Your task to perform on an android device: add a contact in the contacts app Image 0: 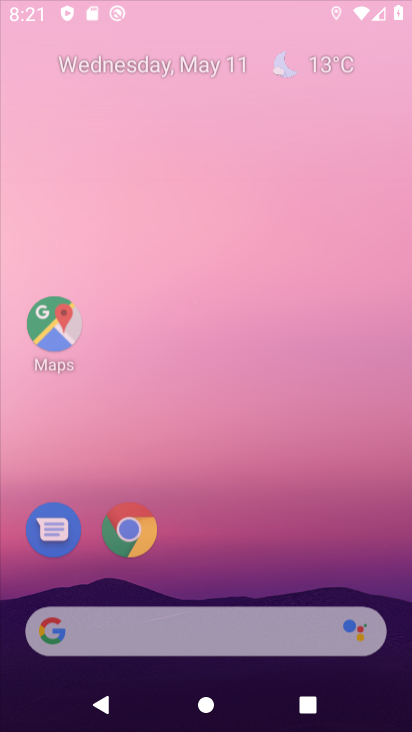
Step 0: click (365, 30)
Your task to perform on an android device: add a contact in the contacts app Image 1: 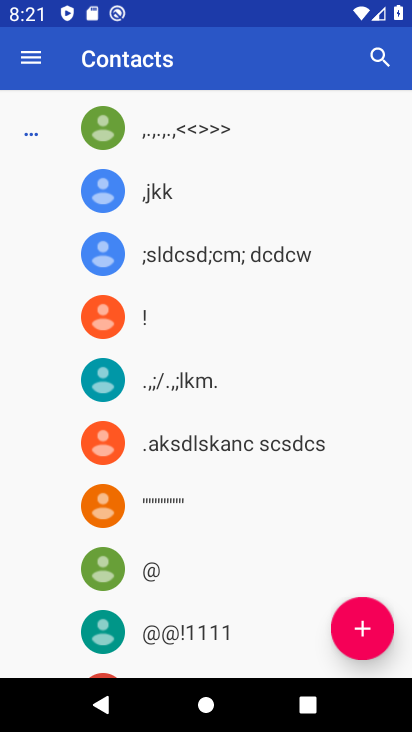
Step 1: press back button
Your task to perform on an android device: add a contact in the contacts app Image 2: 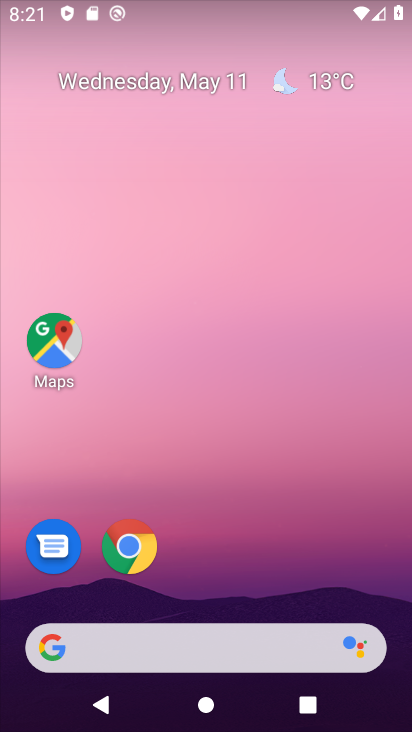
Step 2: drag from (271, 528) to (308, 15)
Your task to perform on an android device: add a contact in the contacts app Image 3: 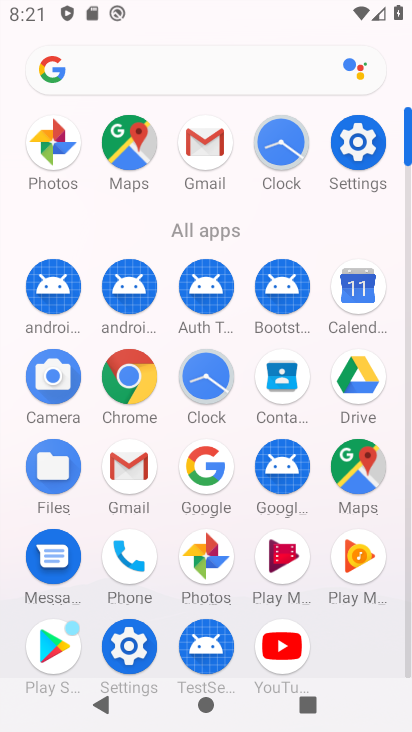
Step 3: click (279, 381)
Your task to perform on an android device: add a contact in the contacts app Image 4: 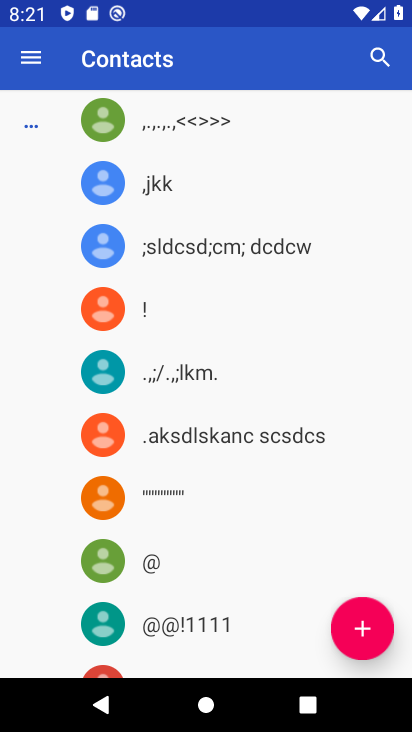
Step 4: click (341, 623)
Your task to perform on an android device: add a contact in the contacts app Image 5: 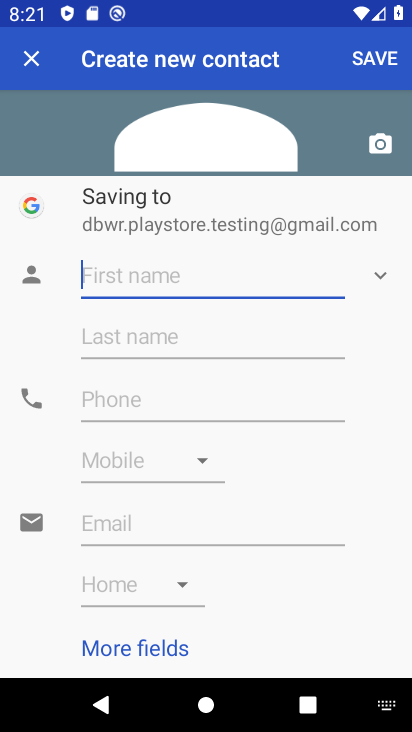
Step 5: click (131, 277)
Your task to perform on an android device: add a contact in the contacts app Image 6: 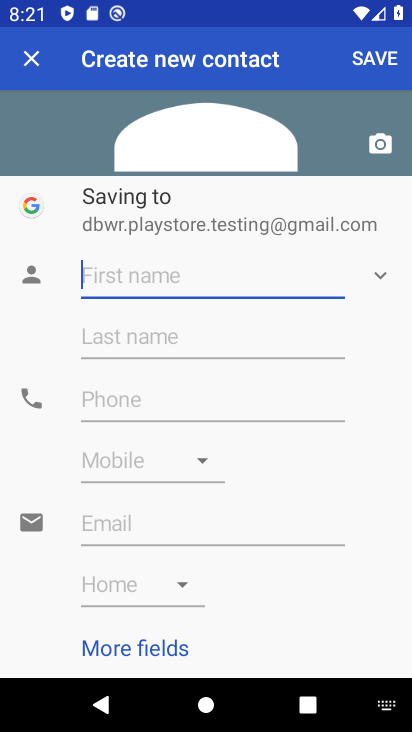
Step 6: type "gfgf"
Your task to perform on an android device: add a contact in the contacts app Image 7: 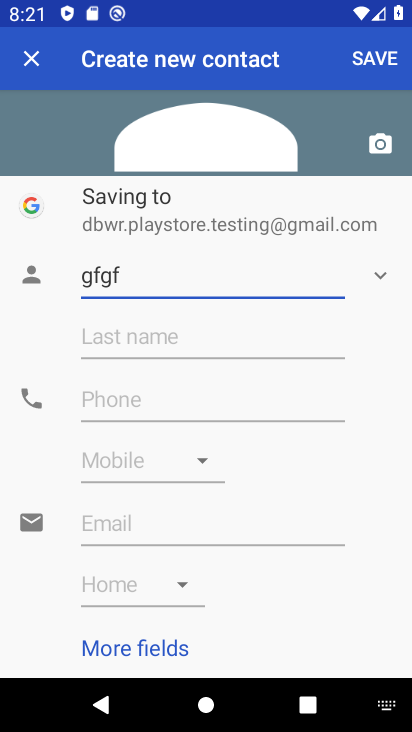
Step 7: click (88, 388)
Your task to perform on an android device: add a contact in the contacts app Image 8: 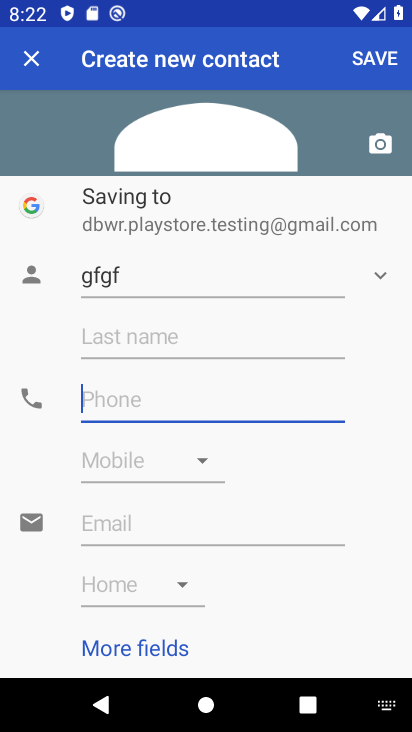
Step 8: type "76767"
Your task to perform on an android device: add a contact in the contacts app Image 9: 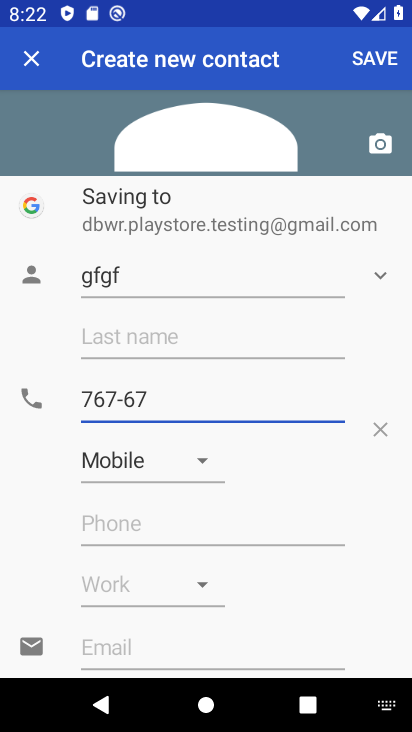
Step 9: click (385, 47)
Your task to perform on an android device: add a contact in the contacts app Image 10: 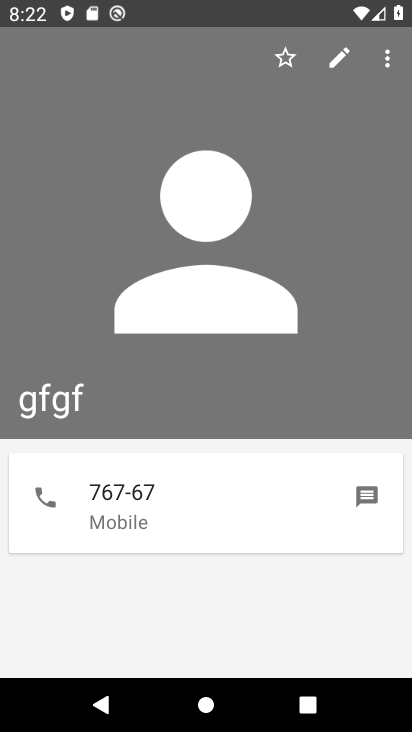
Step 10: task complete